Your task to perform on an android device: open chrome and create a bookmark for the current page Image 0: 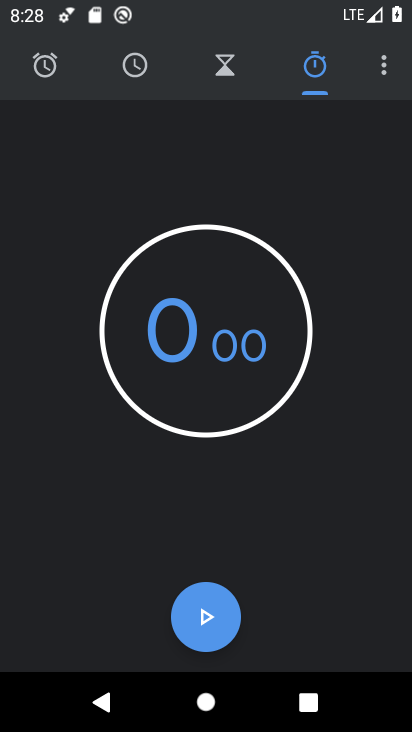
Step 0: press home button
Your task to perform on an android device: open chrome and create a bookmark for the current page Image 1: 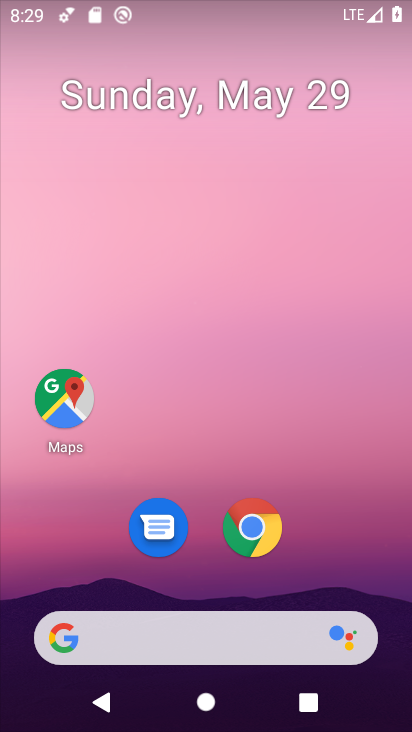
Step 1: click (248, 521)
Your task to perform on an android device: open chrome and create a bookmark for the current page Image 2: 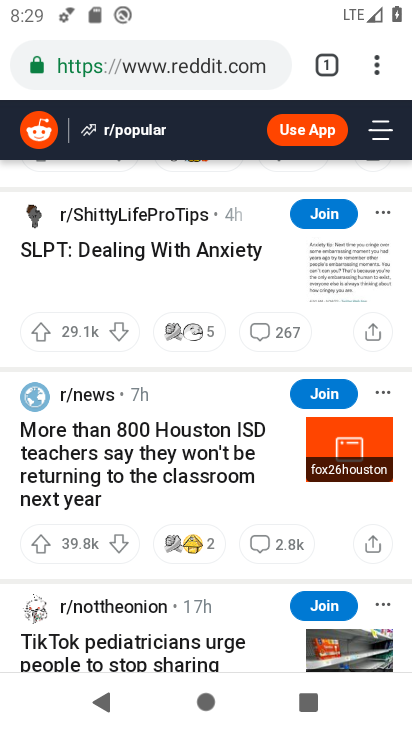
Step 2: click (378, 59)
Your task to perform on an android device: open chrome and create a bookmark for the current page Image 3: 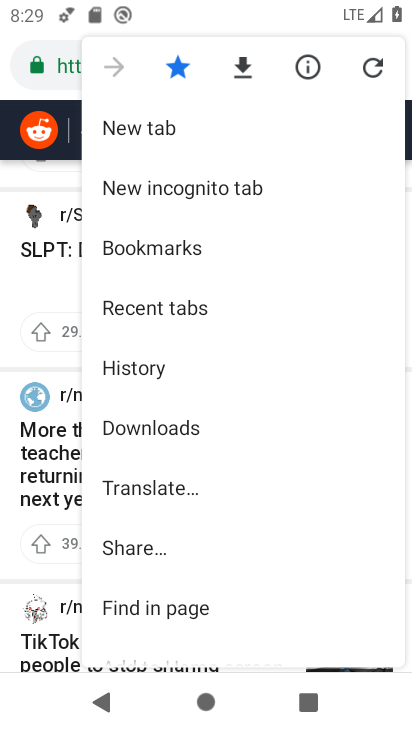
Step 3: task complete